Your task to perform on an android device: allow cookies in the chrome app Image 0: 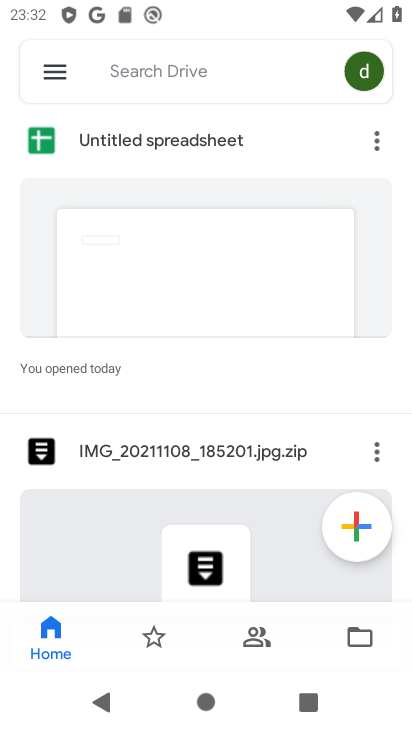
Step 0: press home button
Your task to perform on an android device: allow cookies in the chrome app Image 1: 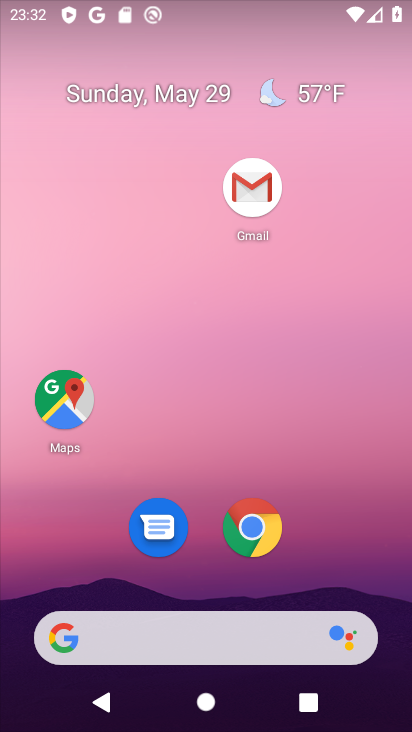
Step 1: click (252, 526)
Your task to perform on an android device: allow cookies in the chrome app Image 2: 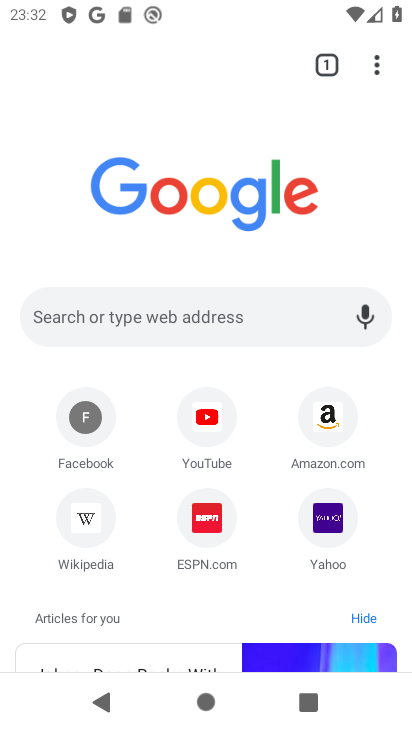
Step 2: click (376, 66)
Your task to perform on an android device: allow cookies in the chrome app Image 3: 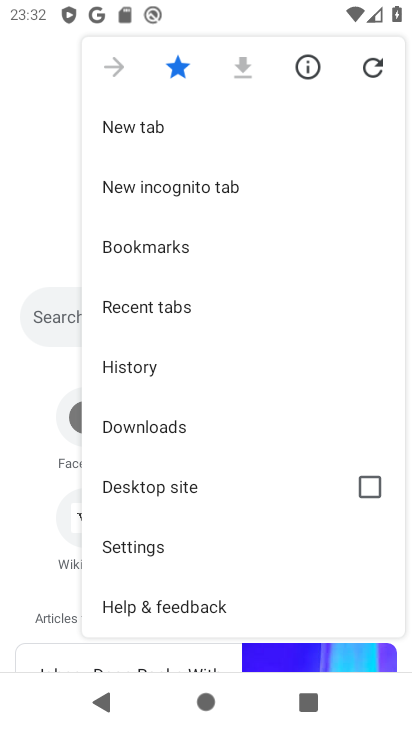
Step 3: drag from (161, 386) to (174, 316)
Your task to perform on an android device: allow cookies in the chrome app Image 4: 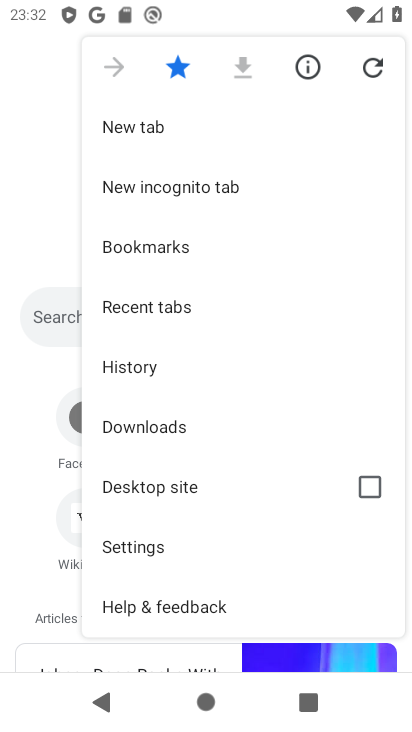
Step 4: click (153, 546)
Your task to perform on an android device: allow cookies in the chrome app Image 5: 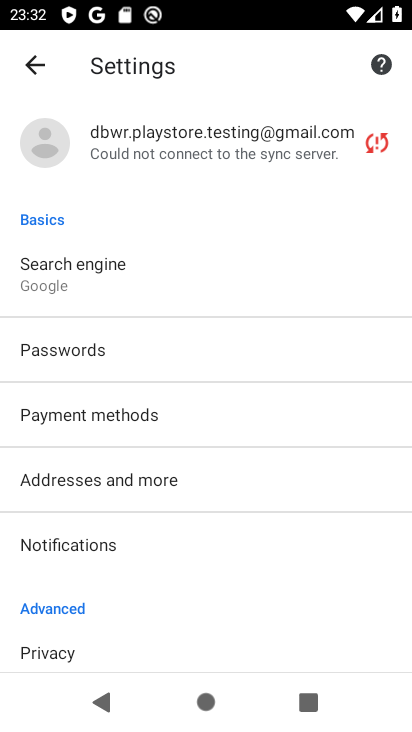
Step 5: drag from (95, 592) to (161, 478)
Your task to perform on an android device: allow cookies in the chrome app Image 6: 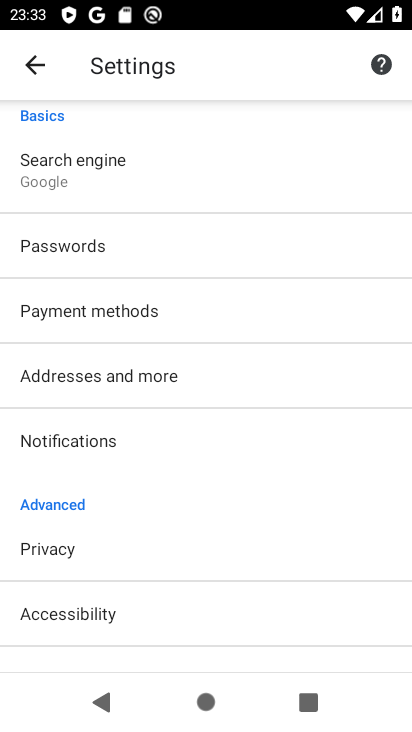
Step 6: drag from (150, 624) to (240, 515)
Your task to perform on an android device: allow cookies in the chrome app Image 7: 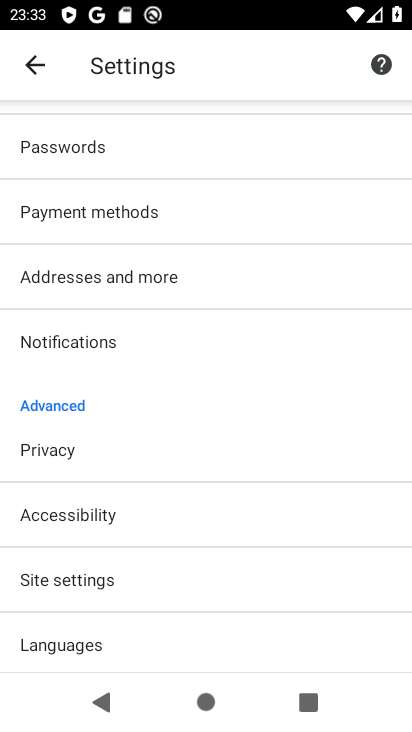
Step 7: click (72, 582)
Your task to perform on an android device: allow cookies in the chrome app Image 8: 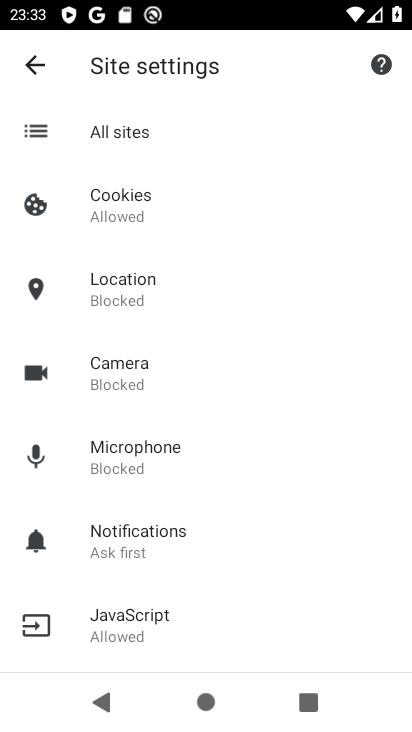
Step 8: click (140, 223)
Your task to perform on an android device: allow cookies in the chrome app Image 9: 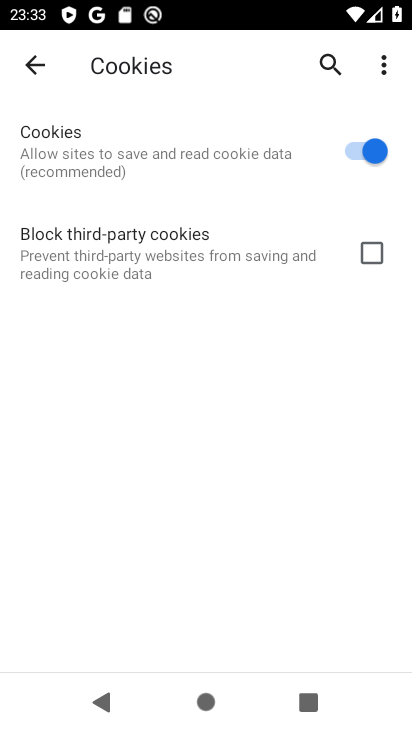
Step 9: click (366, 254)
Your task to perform on an android device: allow cookies in the chrome app Image 10: 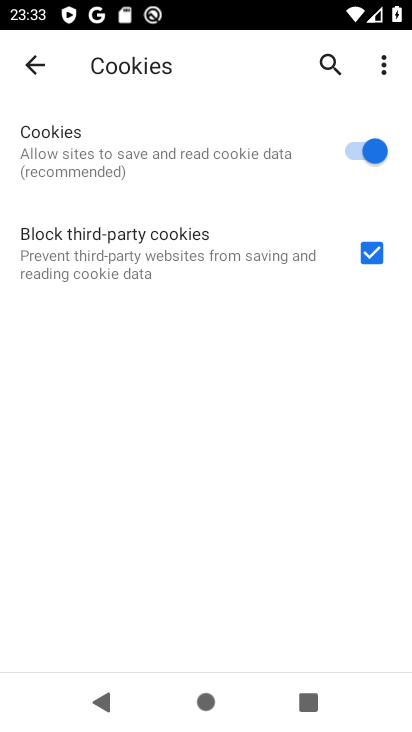
Step 10: task complete